Your task to perform on an android device: check google app version Image 0: 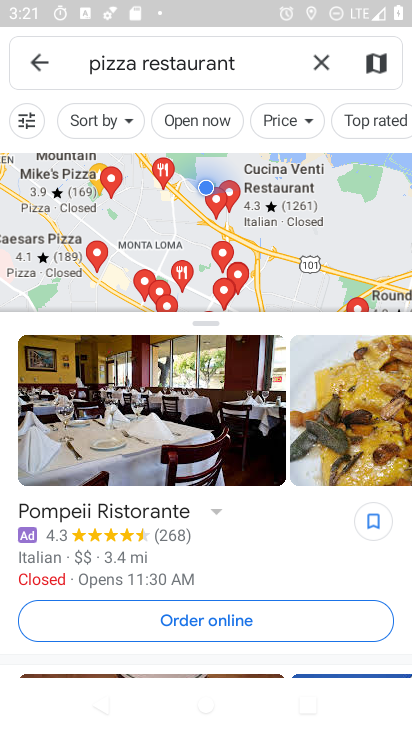
Step 0: press home button
Your task to perform on an android device: check google app version Image 1: 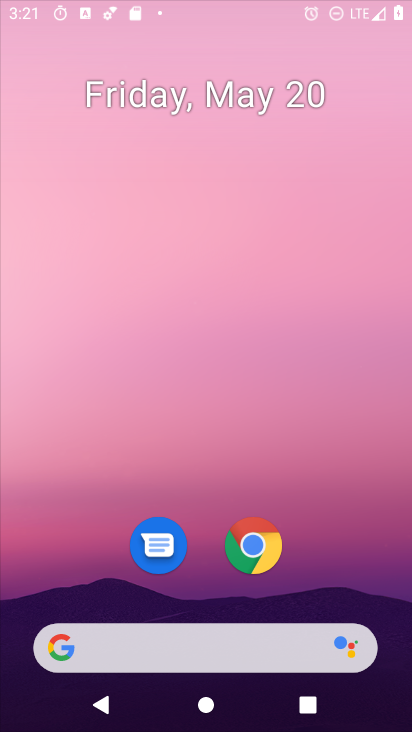
Step 1: drag from (252, 399) to (234, 0)
Your task to perform on an android device: check google app version Image 2: 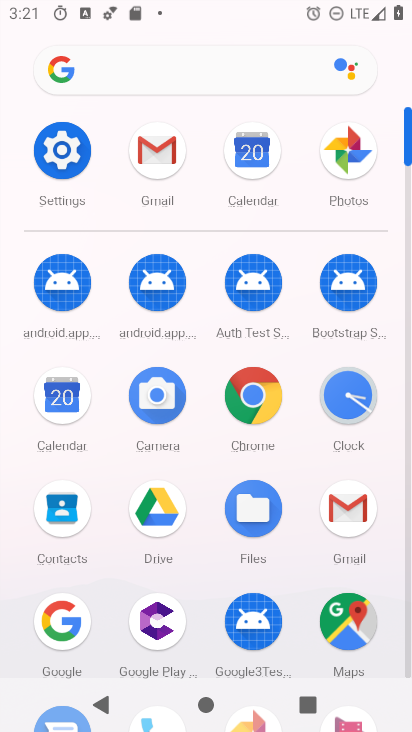
Step 2: drag from (293, 518) to (275, 76)
Your task to perform on an android device: check google app version Image 3: 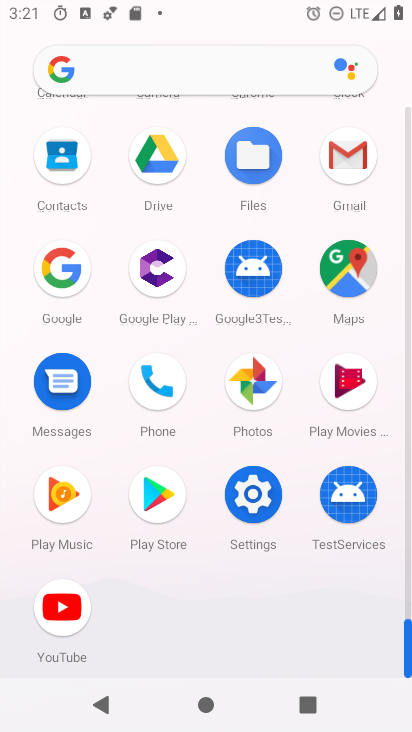
Step 3: click (255, 502)
Your task to perform on an android device: check google app version Image 4: 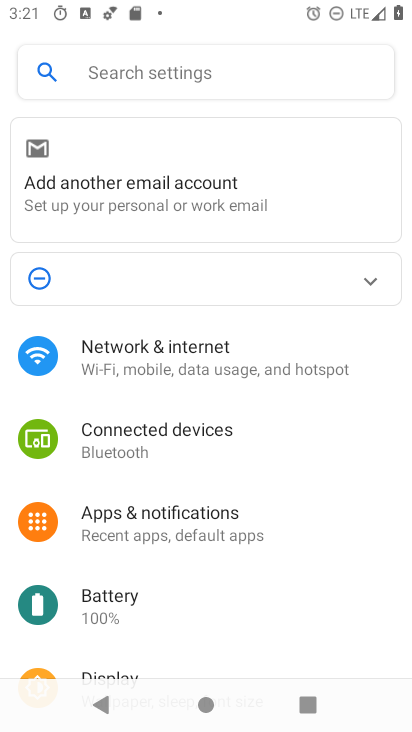
Step 4: drag from (165, 606) to (137, 11)
Your task to perform on an android device: check google app version Image 5: 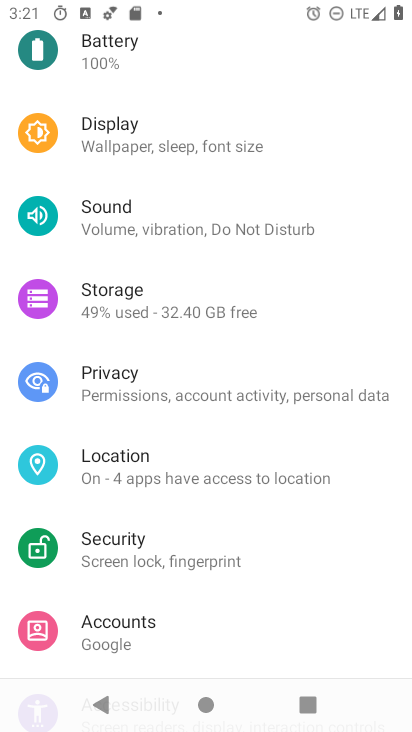
Step 5: drag from (214, 646) to (183, 156)
Your task to perform on an android device: check google app version Image 6: 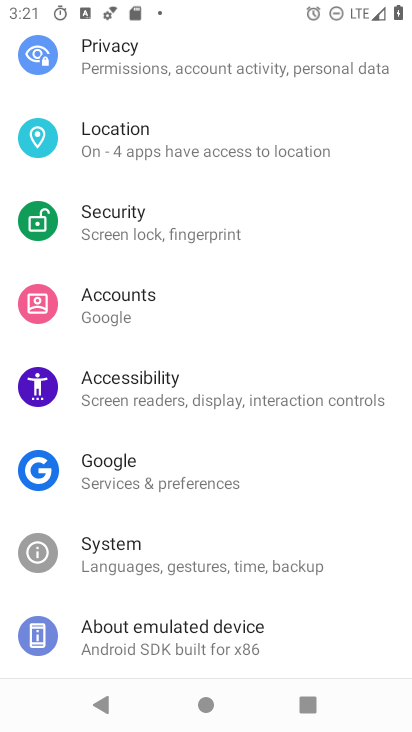
Step 6: click (156, 634)
Your task to perform on an android device: check google app version Image 7: 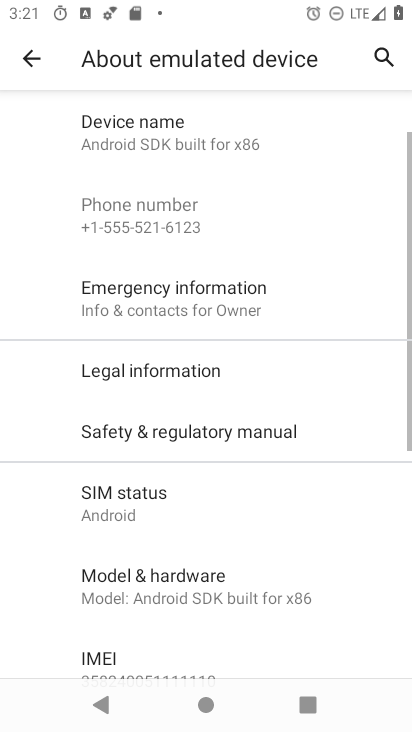
Step 7: drag from (271, 620) to (304, 12)
Your task to perform on an android device: check google app version Image 8: 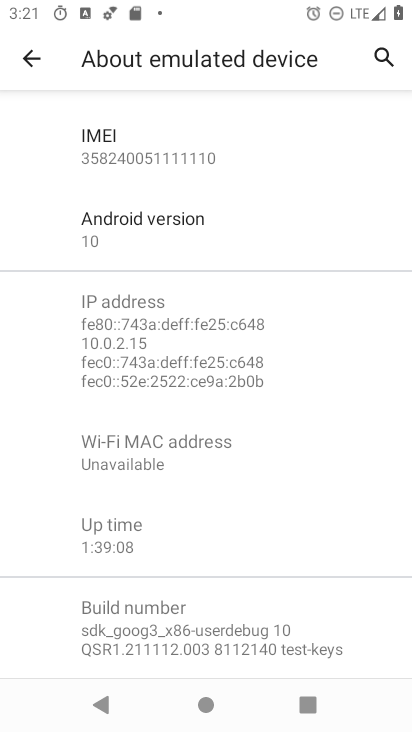
Step 8: drag from (214, 585) to (198, 178)
Your task to perform on an android device: check google app version Image 9: 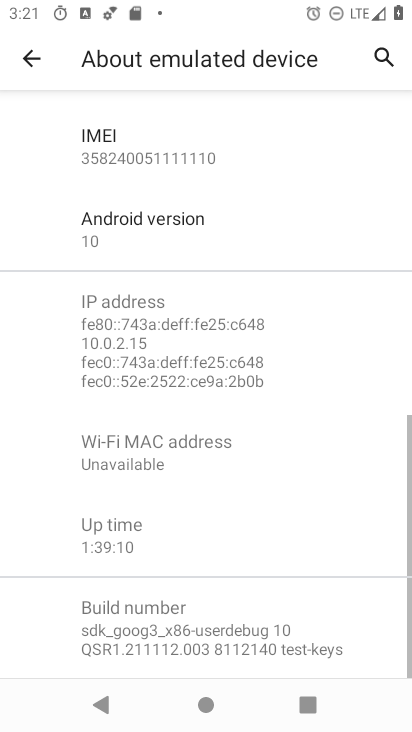
Step 9: press back button
Your task to perform on an android device: check google app version Image 10: 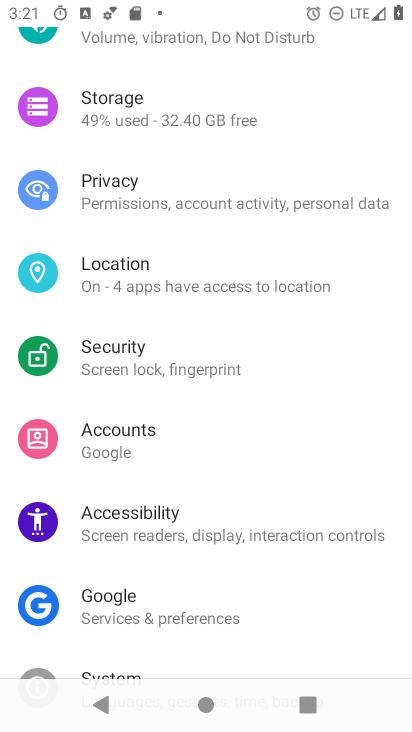
Step 10: press home button
Your task to perform on an android device: check google app version Image 11: 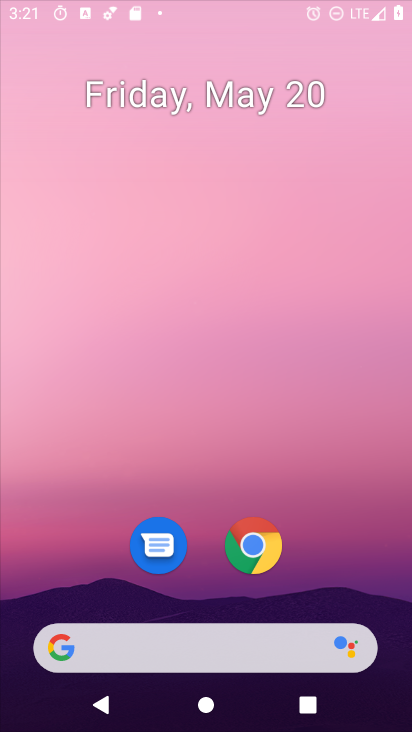
Step 11: drag from (281, 608) to (281, 6)
Your task to perform on an android device: check google app version Image 12: 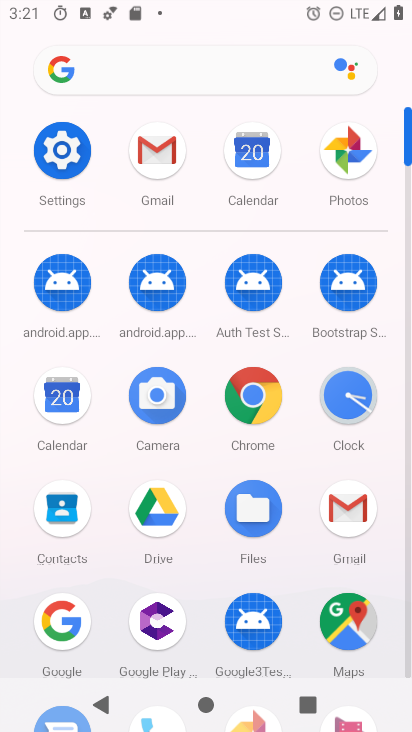
Step 12: click (255, 395)
Your task to perform on an android device: check google app version Image 13: 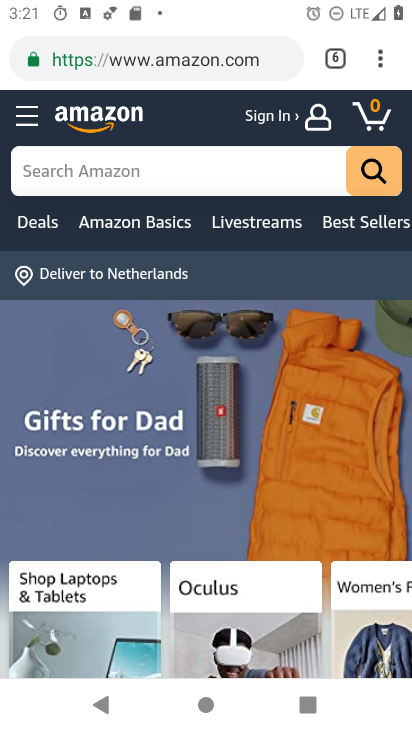
Step 13: click (380, 56)
Your task to perform on an android device: check google app version Image 14: 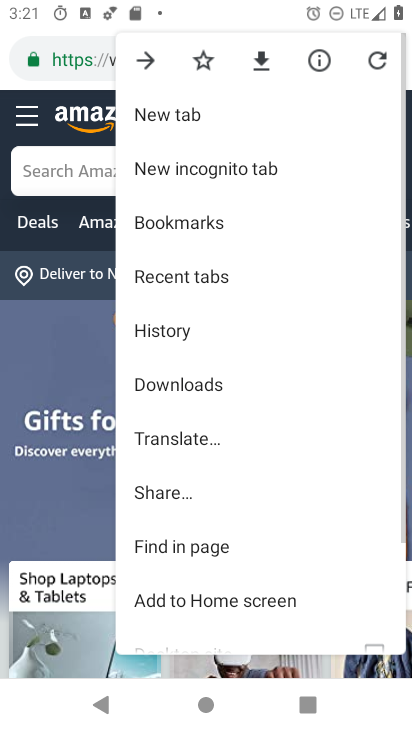
Step 14: drag from (262, 582) to (303, 113)
Your task to perform on an android device: check google app version Image 15: 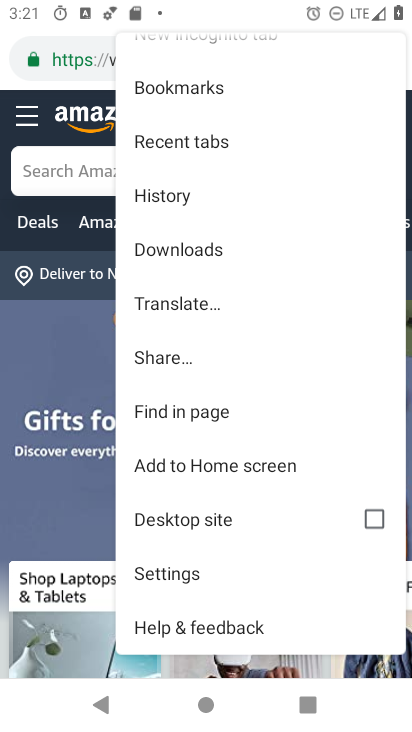
Step 15: click (202, 569)
Your task to perform on an android device: check google app version Image 16: 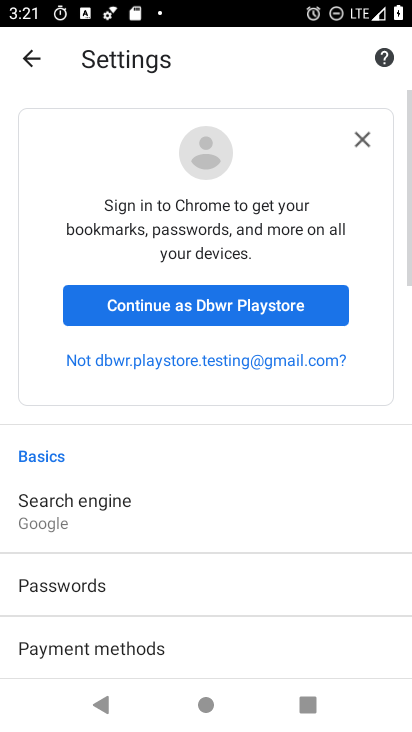
Step 16: press back button
Your task to perform on an android device: check google app version Image 17: 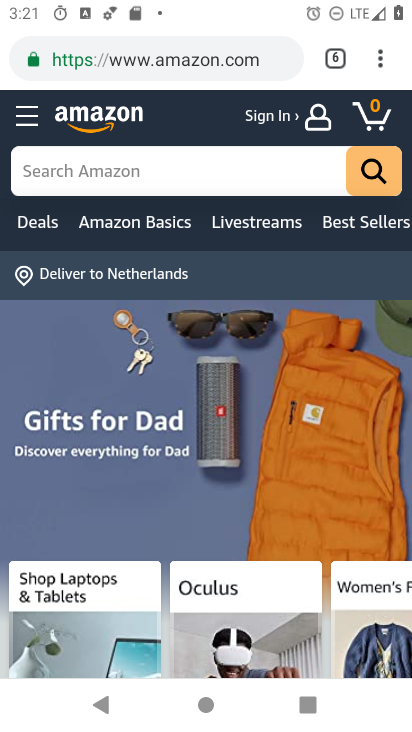
Step 17: click (384, 47)
Your task to perform on an android device: check google app version Image 18: 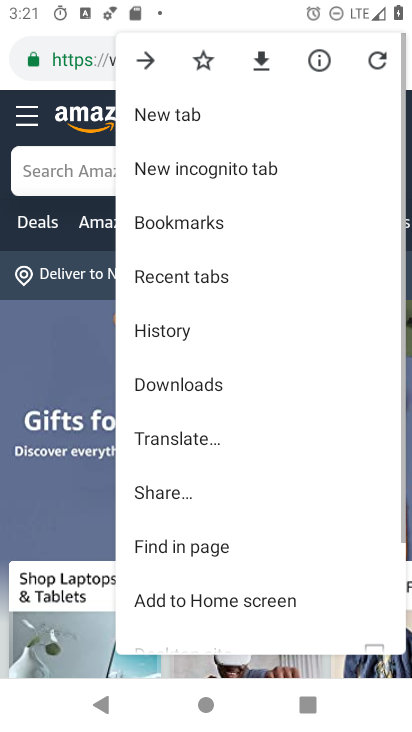
Step 18: drag from (283, 597) to (287, 37)
Your task to perform on an android device: check google app version Image 19: 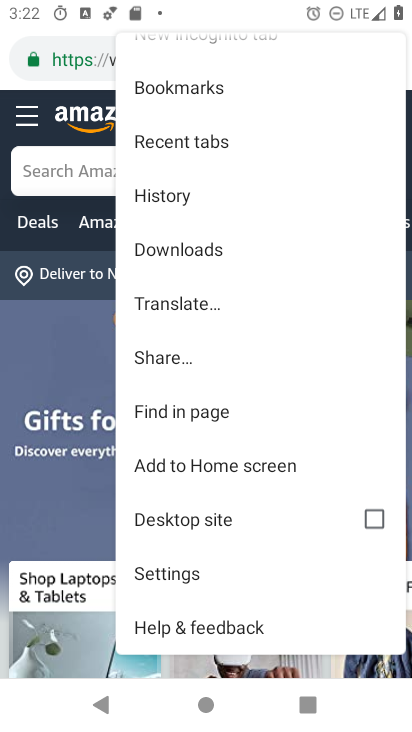
Step 19: click (258, 636)
Your task to perform on an android device: check google app version Image 20: 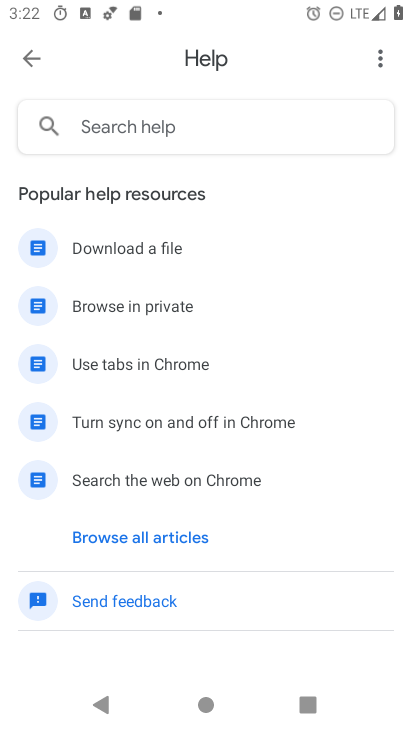
Step 20: click (386, 63)
Your task to perform on an android device: check google app version Image 21: 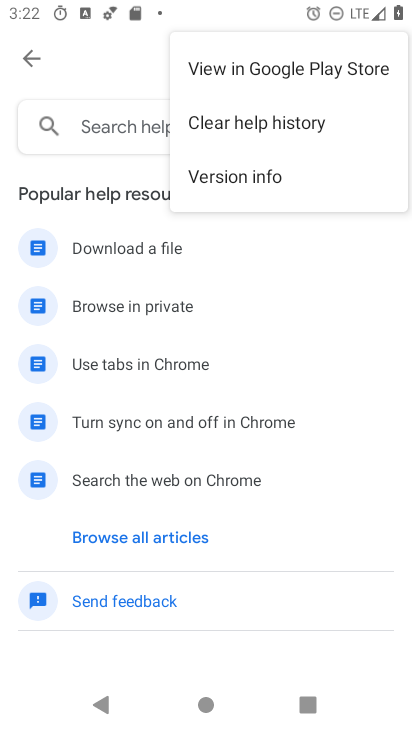
Step 21: click (279, 177)
Your task to perform on an android device: check google app version Image 22: 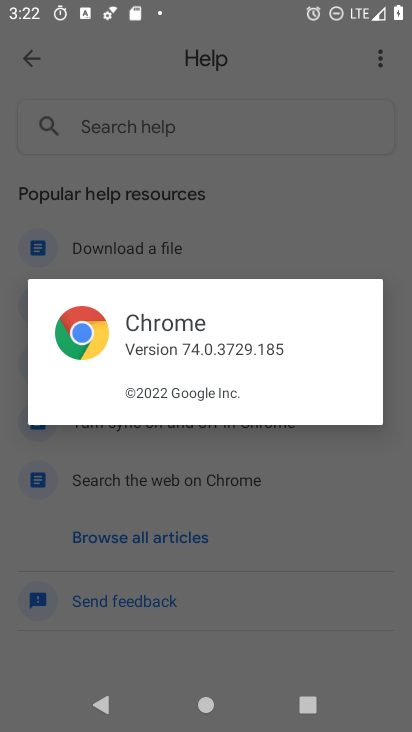
Step 22: task complete